Your task to perform on an android device: Open notification settings Image 0: 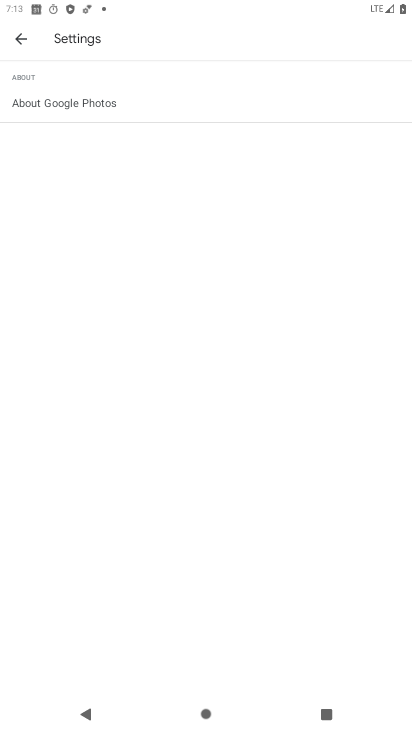
Step 0: press home button
Your task to perform on an android device: Open notification settings Image 1: 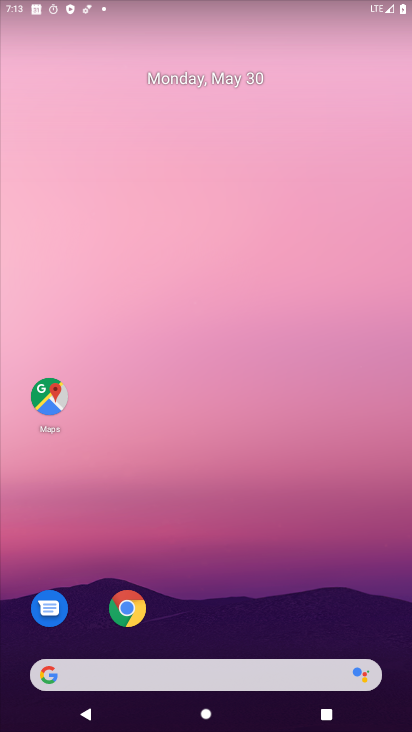
Step 1: drag from (208, 564) to (322, 269)
Your task to perform on an android device: Open notification settings Image 2: 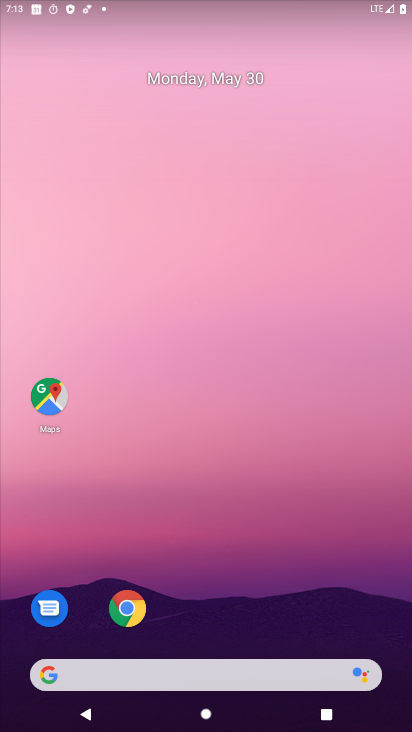
Step 2: click (379, 191)
Your task to perform on an android device: Open notification settings Image 3: 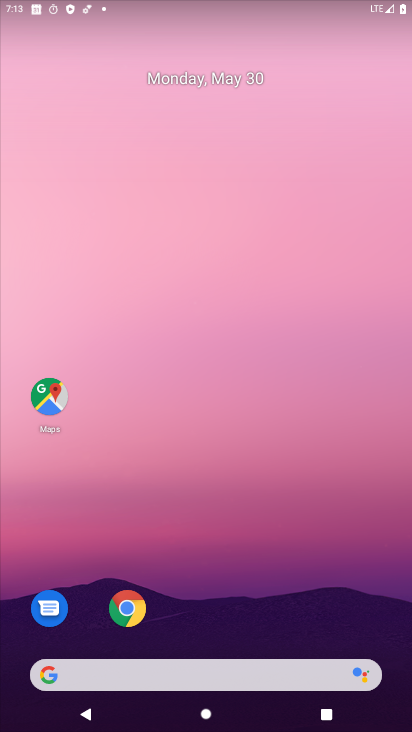
Step 3: drag from (276, 595) to (409, 114)
Your task to perform on an android device: Open notification settings Image 4: 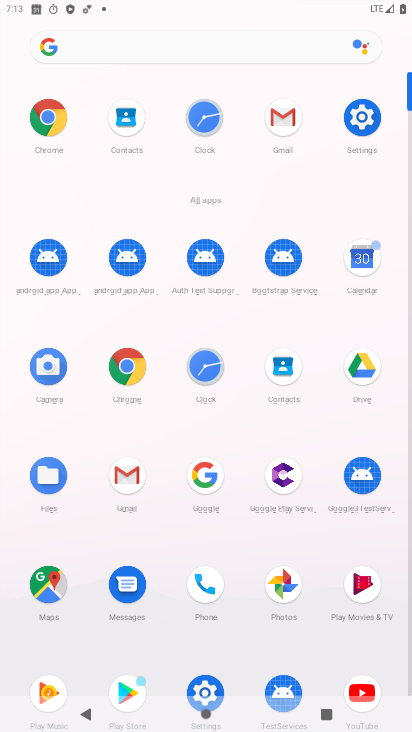
Step 4: click (367, 118)
Your task to perform on an android device: Open notification settings Image 5: 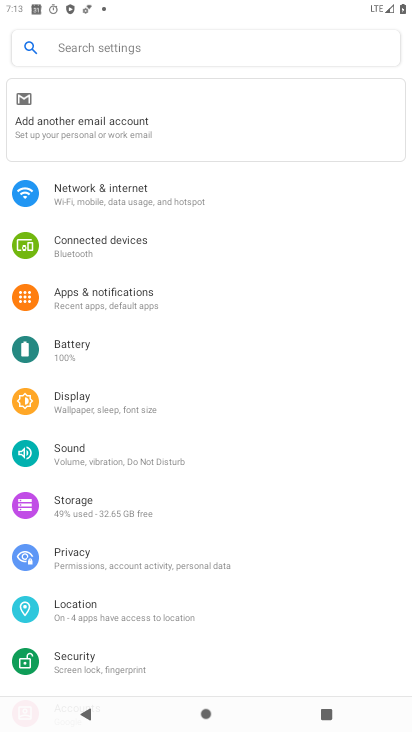
Step 5: click (127, 289)
Your task to perform on an android device: Open notification settings Image 6: 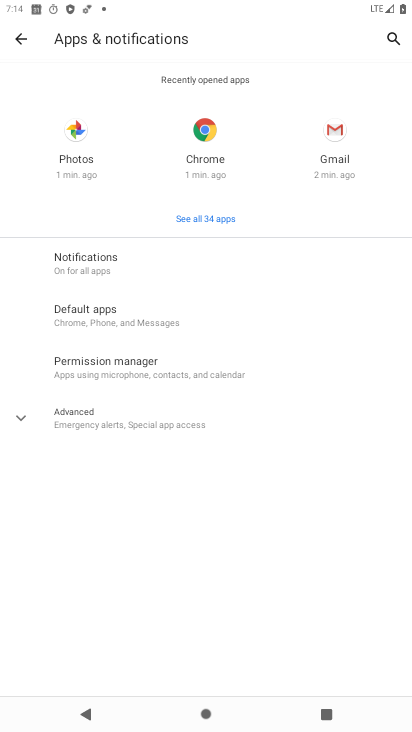
Step 6: task complete